Your task to perform on an android device: Open the stopwatch Image 0: 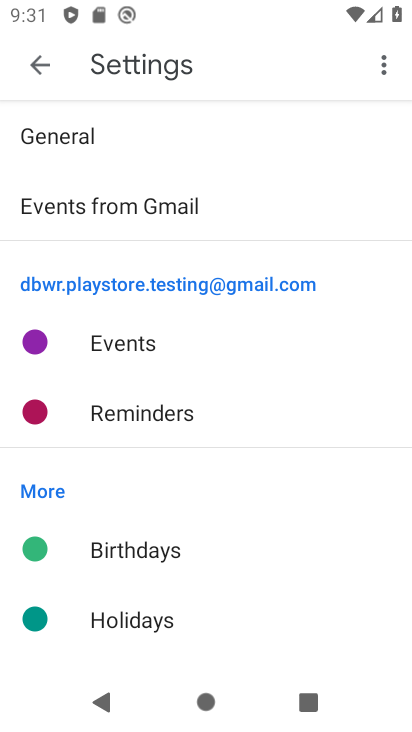
Step 0: press back button
Your task to perform on an android device: Open the stopwatch Image 1: 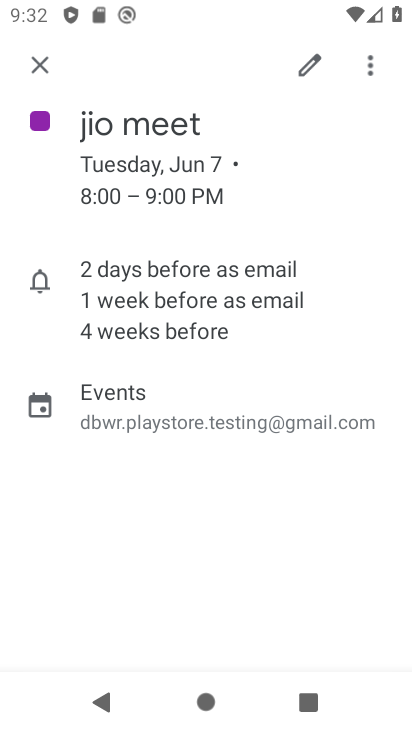
Step 1: press back button
Your task to perform on an android device: Open the stopwatch Image 2: 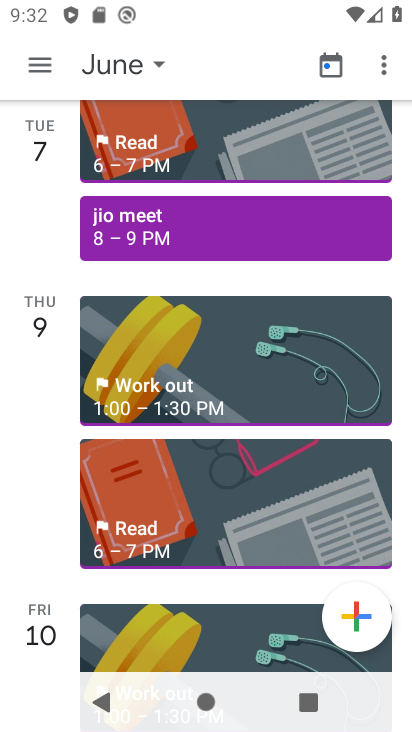
Step 2: press back button
Your task to perform on an android device: Open the stopwatch Image 3: 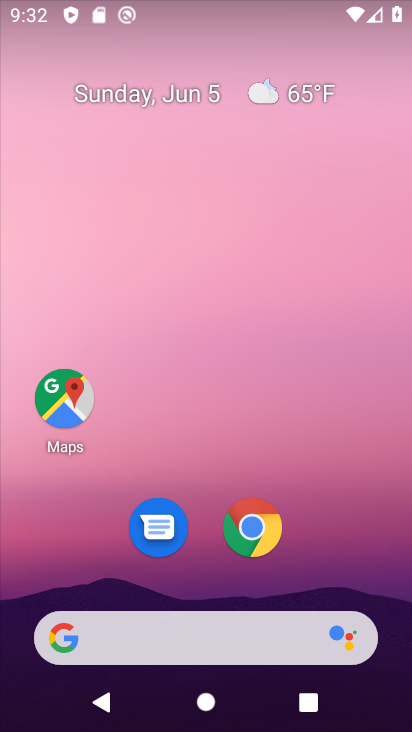
Step 3: drag from (190, 484) to (220, 171)
Your task to perform on an android device: Open the stopwatch Image 4: 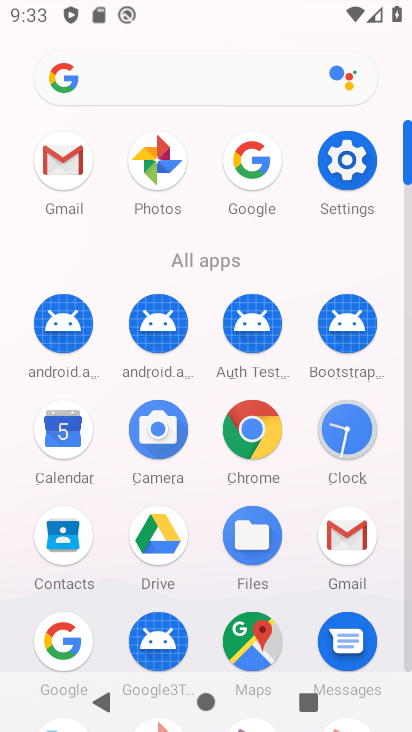
Step 4: click (339, 422)
Your task to perform on an android device: Open the stopwatch Image 5: 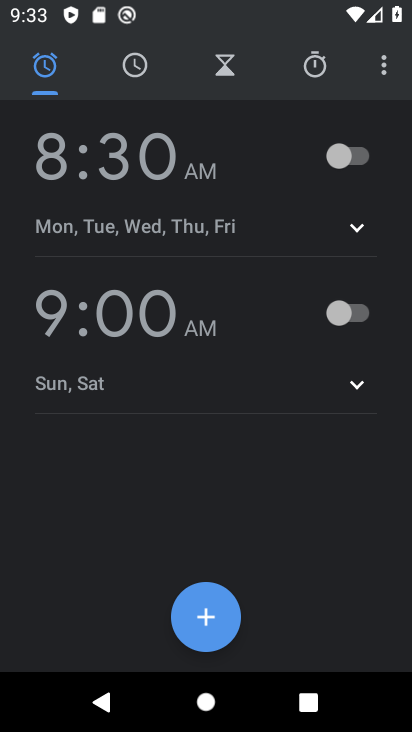
Step 5: click (299, 56)
Your task to perform on an android device: Open the stopwatch Image 6: 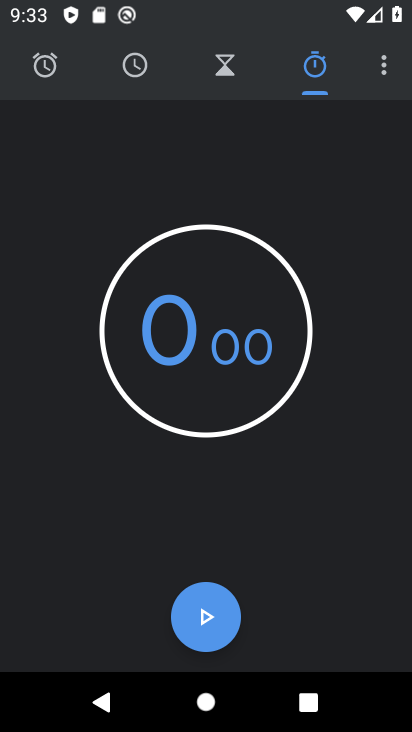
Step 6: task complete